Your task to perform on an android device: Show me productivity apps on the Play Store Image 0: 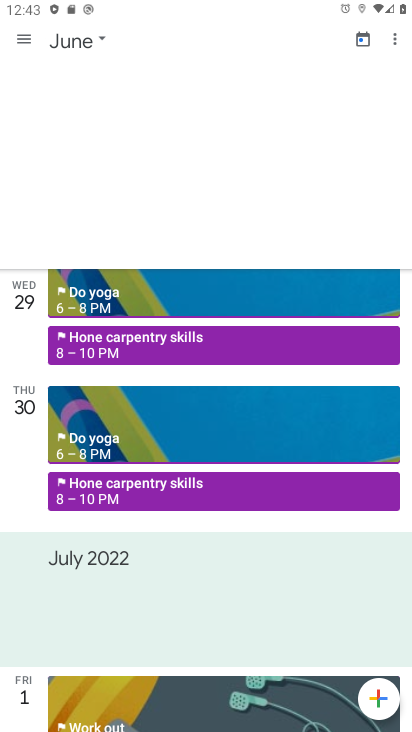
Step 0: press home button
Your task to perform on an android device: Show me productivity apps on the Play Store Image 1: 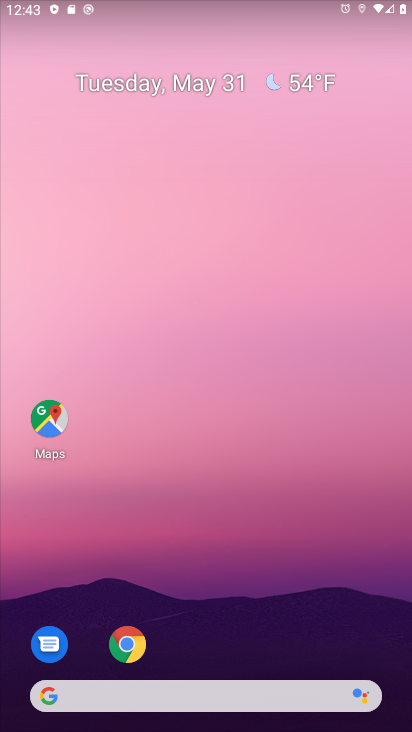
Step 1: click (220, 163)
Your task to perform on an android device: Show me productivity apps on the Play Store Image 2: 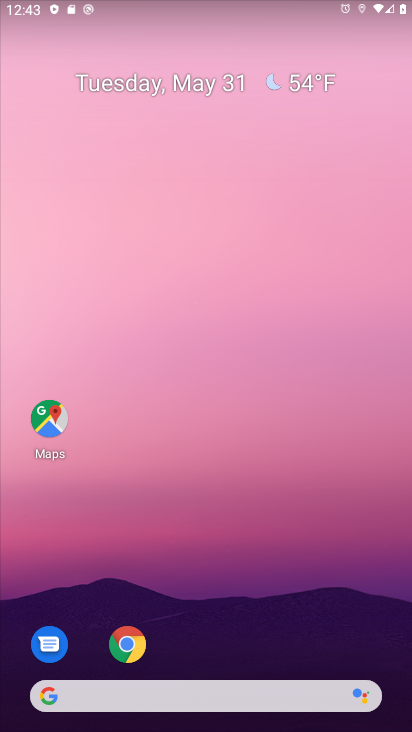
Step 2: drag from (247, 618) to (213, 74)
Your task to perform on an android device: Show me productivity apps on the Play Store Image 3: 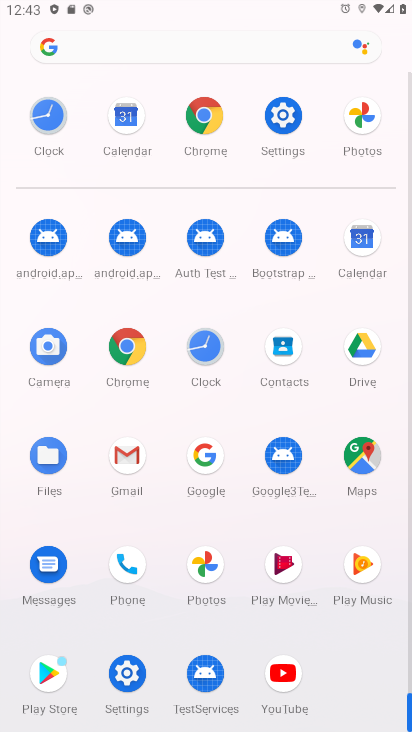
Step 3: click (41, 676)
Your task to perform on an android device: Show me productivity apps on the Play Store Image 4: 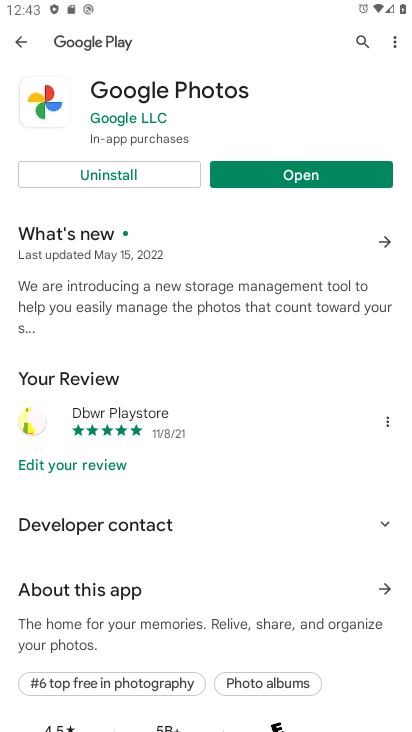
Step 4: press home button
Your task to perform on an android device: Show me productivity apps on the Play Store Image 5: 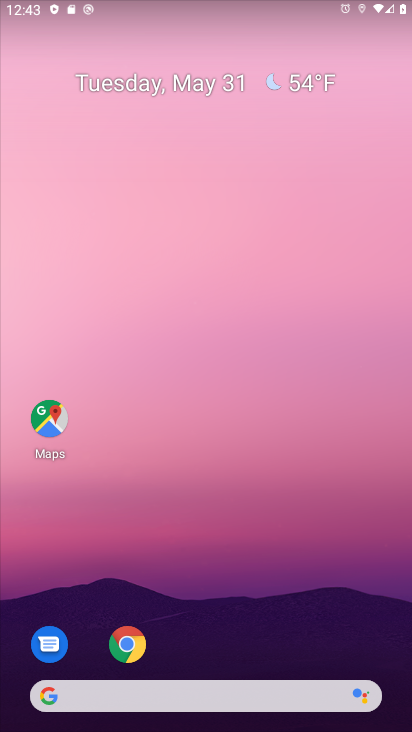
Step 5: drag from (278, 623) to (353, 96)
Your task to perform on an android device: Show me productivity apps on the Play Store Image 6: 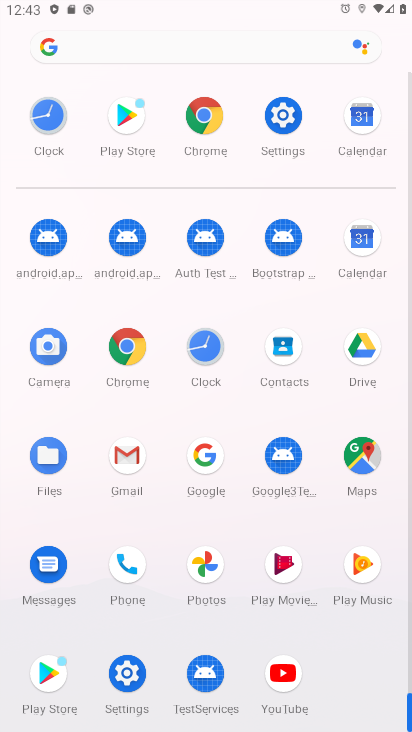
Step 6: click (130, 115)
Your task to perform on an android device: Show me productivity apps on the Play Store Image 7: 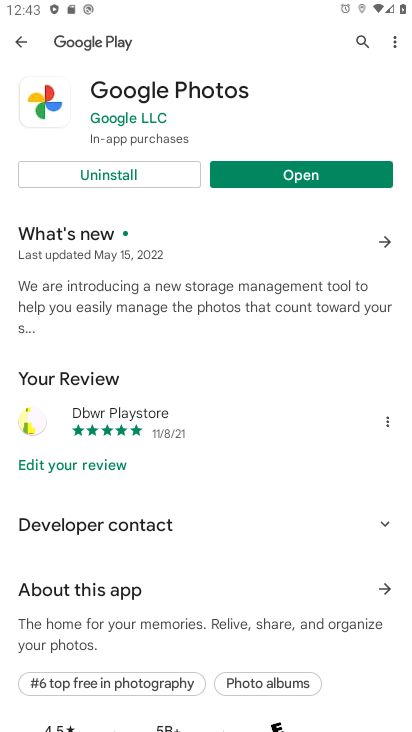
Step 7: click (24, 42)
Your task to perform on an android device: Show me productivity apps on the Play Store Image 8: 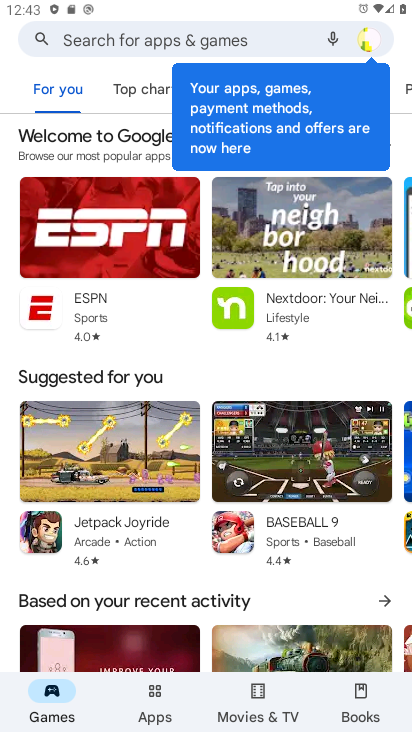
Step 8: click (161, 696)
Your task to perform on an android device: Show me productivity apps on the Play Store Image 9: 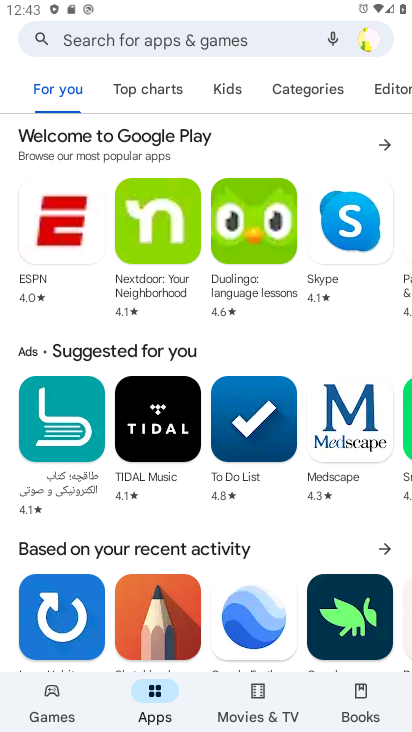
Step 9: click (300, 88)
Your task to perform on an android device: Show me productivity apps on the Play Store Image 10: 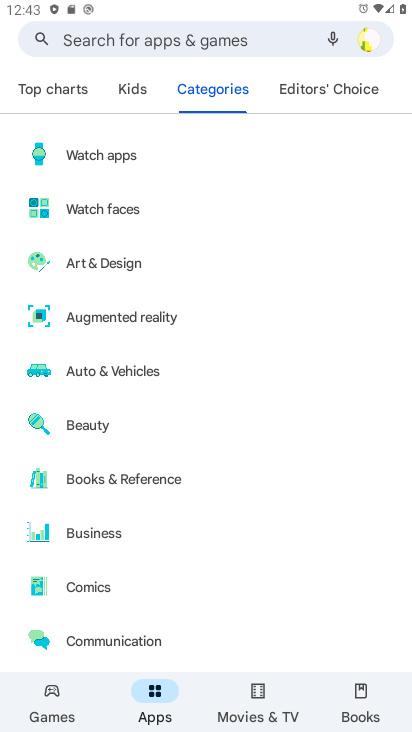
Step 10: drag from (305, 585) to (306, 155)
Your task to perform on an android device: Show me productivity apps on the Play Store Image 11: 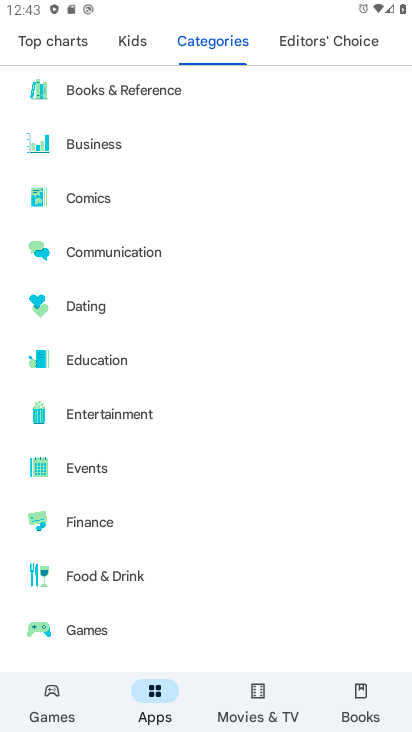
Step 11: drag from (244, 589) to (228, 13)
Your task to perform on an android device: Show me productivity apps on the Play Store Image 12: 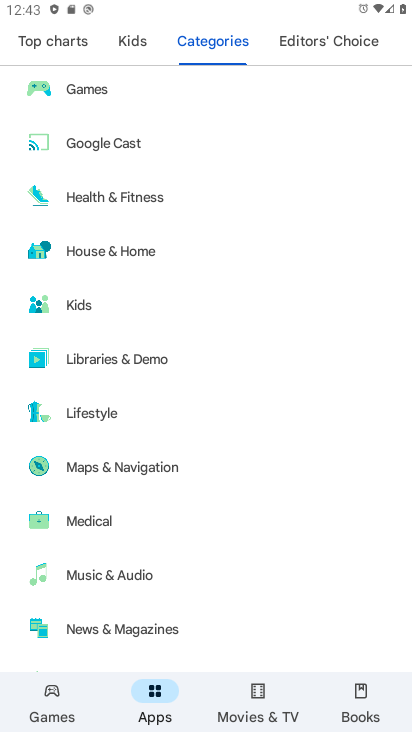
Step 12: drag from (277, 552) to (235, 28)
Your task to perform on an android device: Show me productivity apps on the Play Store Image 13: 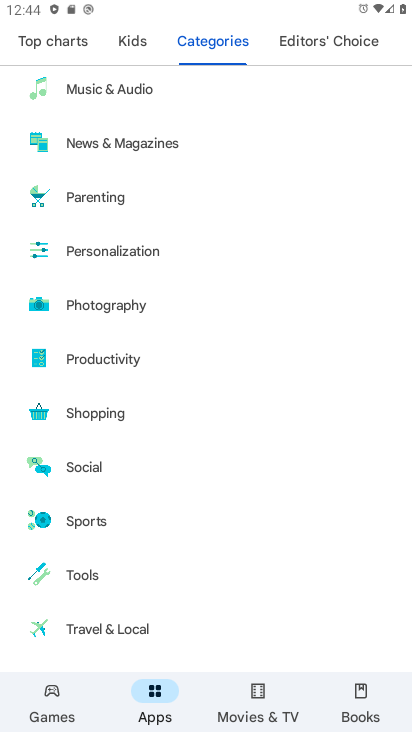
Step 13: click (97, 355)
Your task to perform on an android device: Show me productivity apps on the Play Store Image 14: 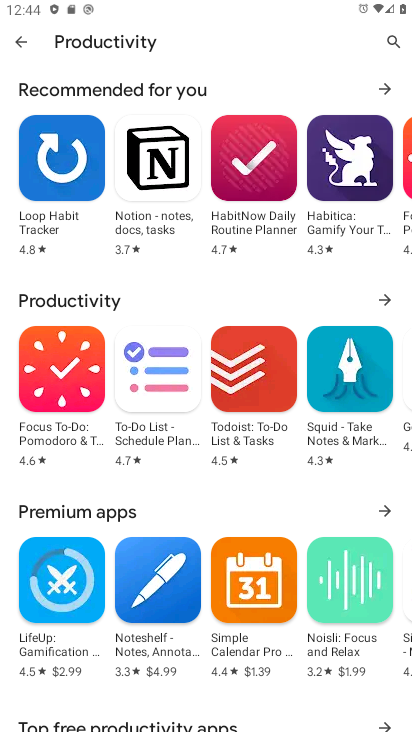
Step 14: task complete